Your task to perform on an android device: Open the phone app and click the voicemail tab. Image 0: 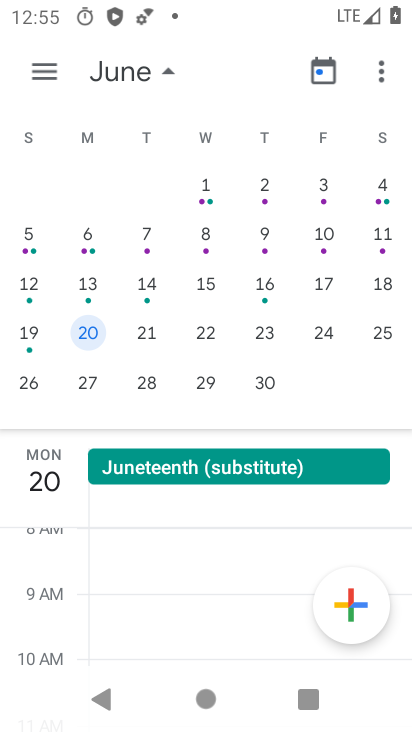
Step 0: press home button
Your task to perform on an android device: Open the phone app and click the voicemail tab. Image 1: 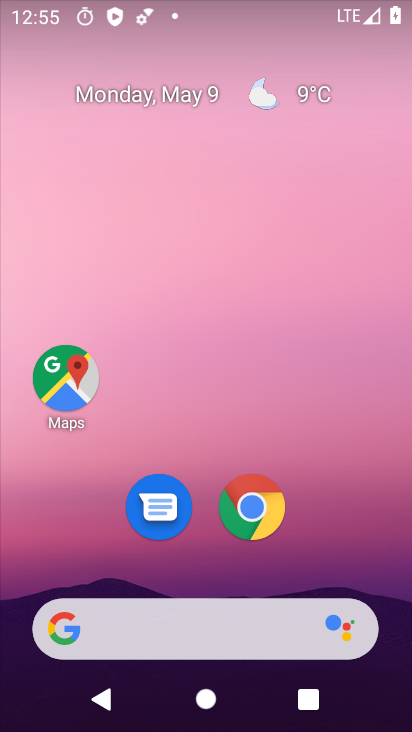
Step 1: drag from (230, 726) to (233, 140)
Your task to perform on an android device: Open the phone app and click the voicemail tab. Image 2: 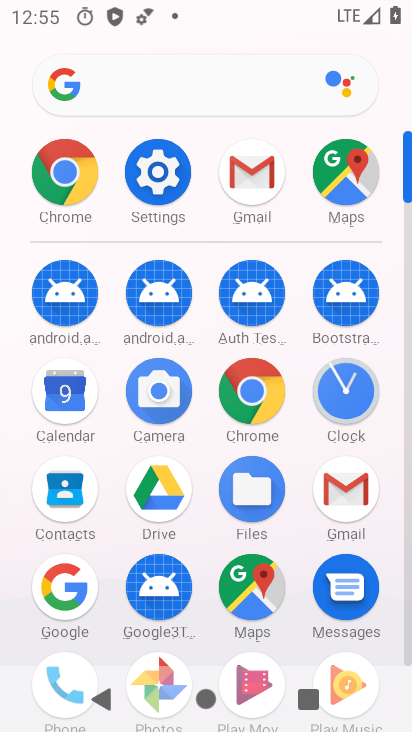
Step 2: drag from (26, 466) to (26, 281)
Your task to perform on an android device: Open the phone app and click the voicemail tab. Image 3: 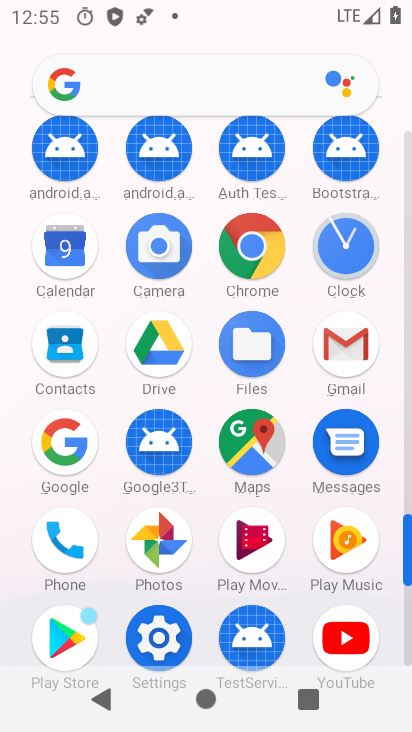
Step 3: click (62, 532)
Your task to perform on an android device: Open the phone app and click the voicemail tab. Image 4: 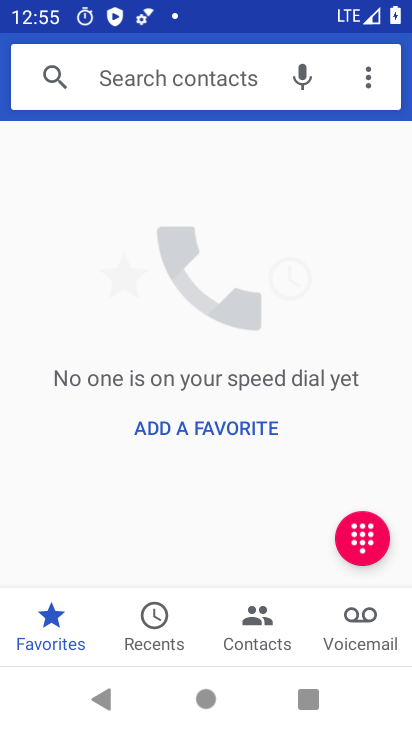
Step 4: click (347, 621)
Your task to perform on an android device: Open the phone app and click the voicemail tab. Image 5: 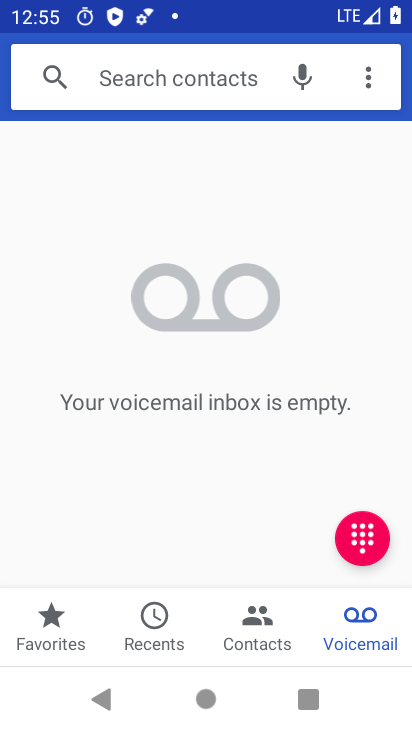
Step 5: task complete